Your task to perform on an android device: Open Chrome and go to settings Image 0: 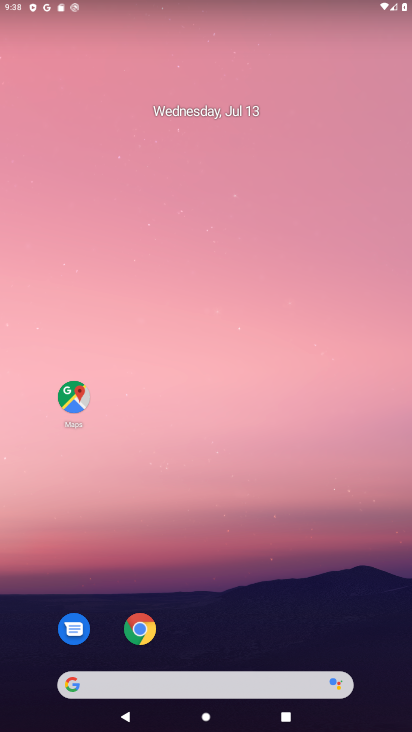
Step 0: click (138, 632)
Your task to perform on an android device: Open Chrome and go to settings Image 1: 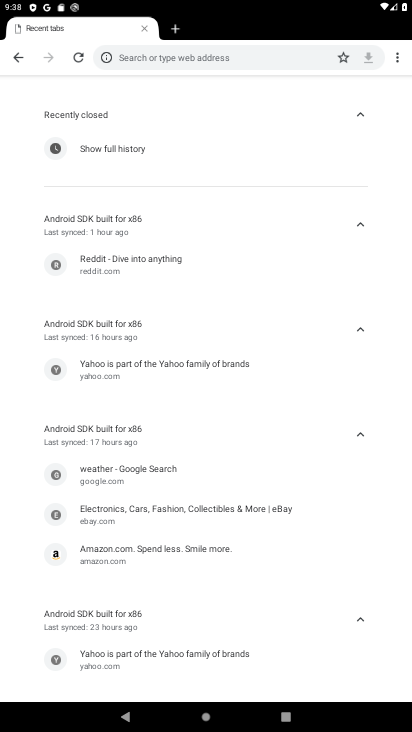
Step 1: click (393, 65)
Your task to perform on an android device: Open Chrome and go to settings Image 2: 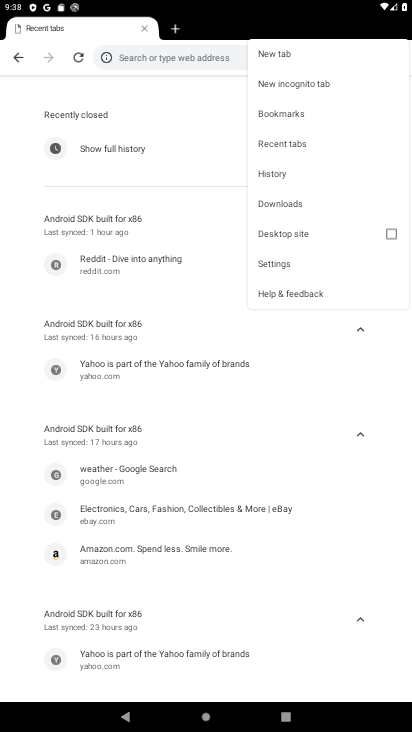
Step 2: click (307, 259)
Your task to perform on an android device: Open Chrome and go to settings Image 3: 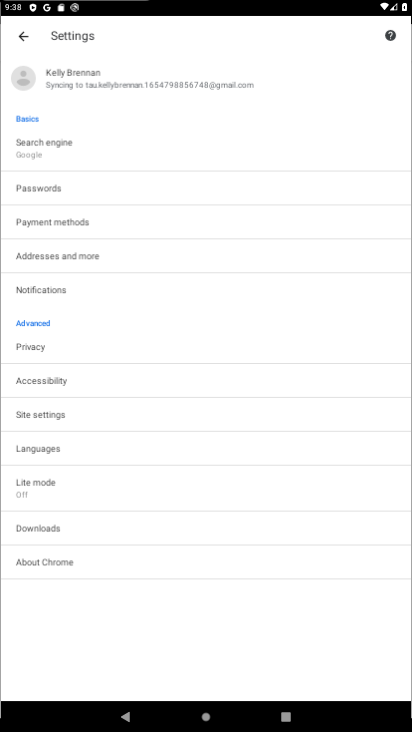
Step 3: task complete